Your task to perform on an android device: Go to internet settings Image 0: 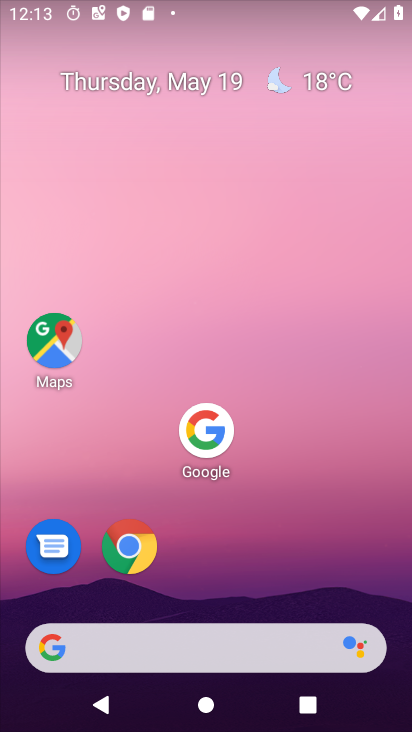
Step 0: drag from (246, 550) to (279, 62)
Your task to perform on an android device: Go to internet settings Image 1: 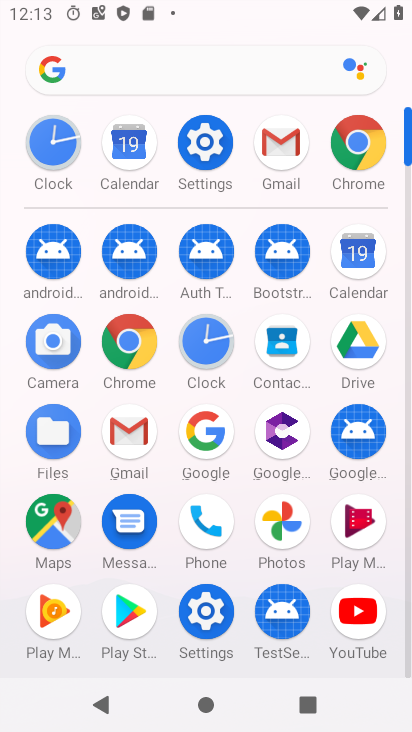
Step 1: click (200, 141)
Your task to perform on an android device: Go to internet settings Image 2: 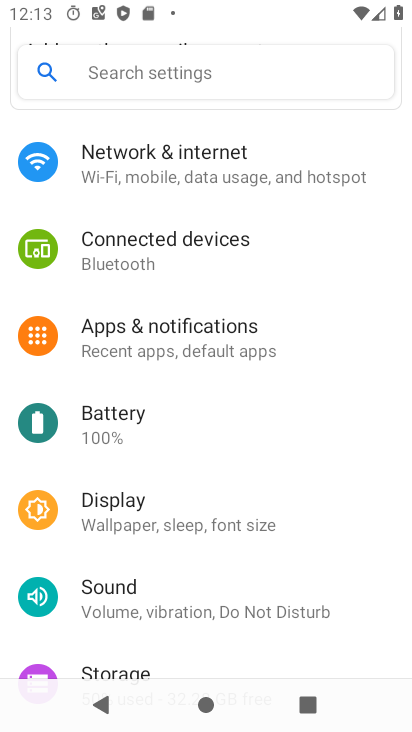
Step 2: click (177, 161)
Your task to perform on an android device: Go to internet settings Image 3: 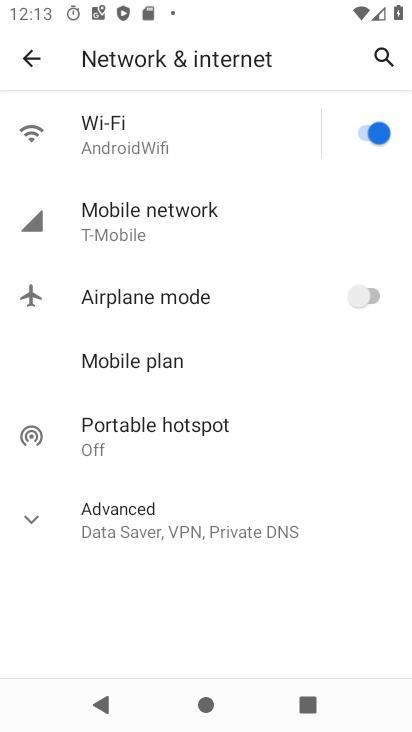
Step 3: click (147, 136)
Your task to perform on an android device: Go to internet settings Image 4: 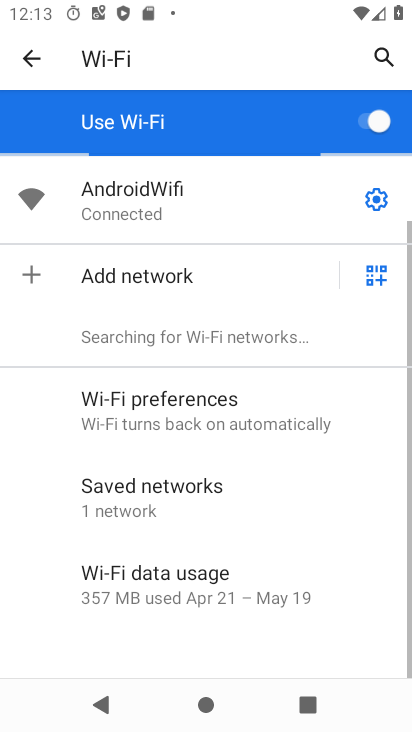
Step 4: click (361, 194)
Your task to perform on an android device: Go to internet settings Image 5: 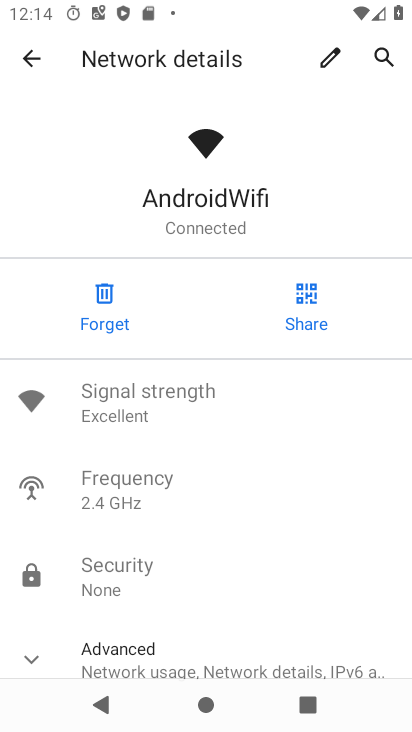
Step 5: task complete